Your task to perform on an android device: Go to Wikipedia Image 0: 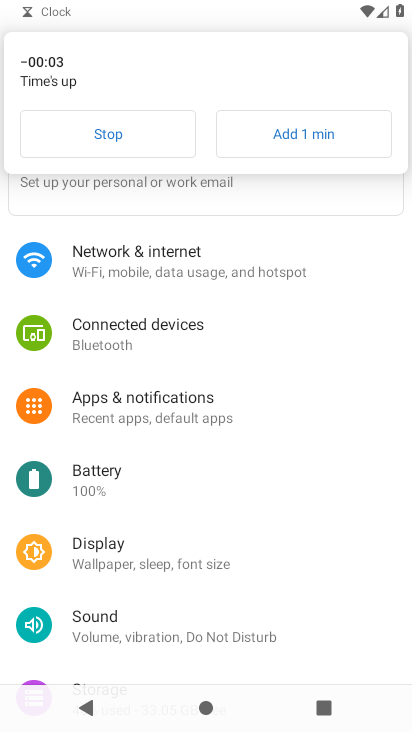
Step 0: click (161, 152)
Your task to perform on an android device: Go to Wikipedia Image 1: 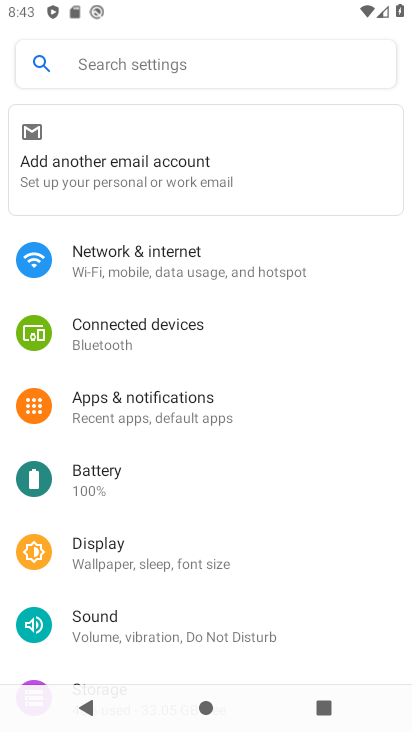
Step 1: press back button
Your task to perform on an android device: Go to Wikipedia Image 2: 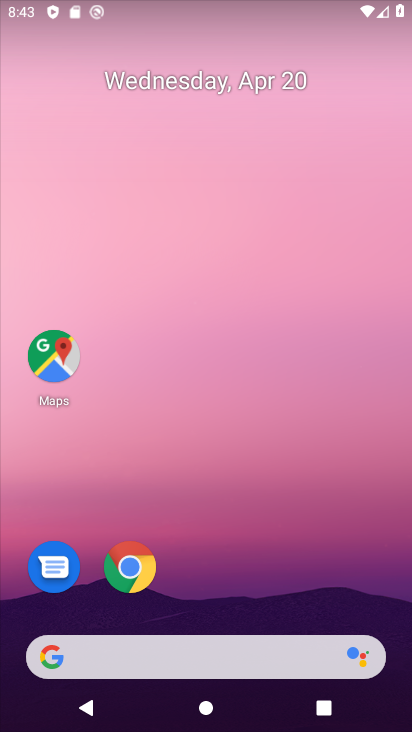
Step 2: click (130, 582)
Your task to perform on an android device: Go to Wikipedia Image 3: 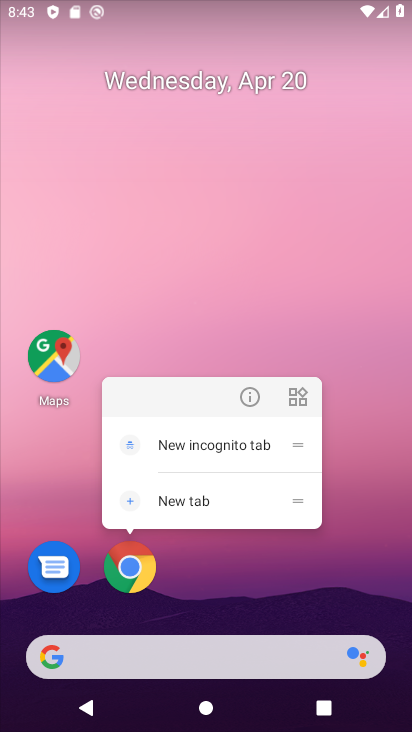
Step 3: click (133, 576)
Your task to perform on an android device: Go to Wikipedia Image 4: 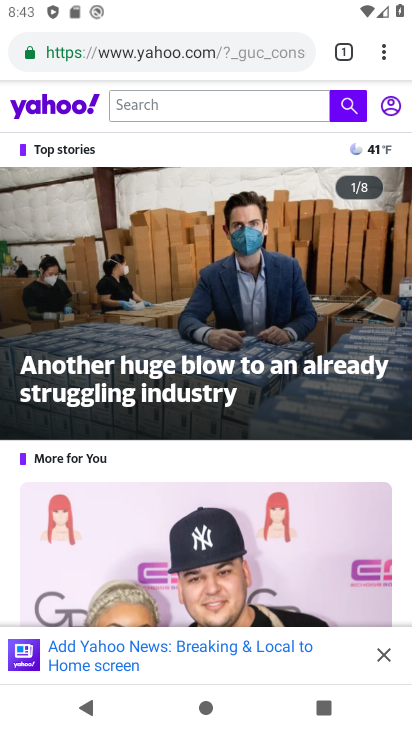
Step 4: press back button
Your task to perform on an android device: Go to Wikipedia Image 5: 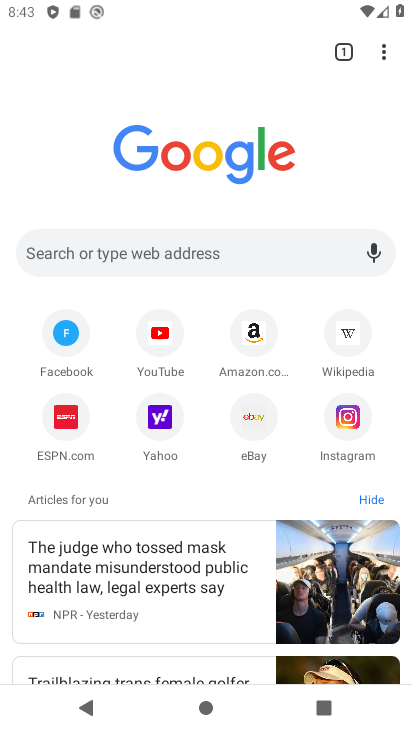
Step 5: click (366, 349)
Your task to perform on an android device: Go to Wikipedia Image 6: 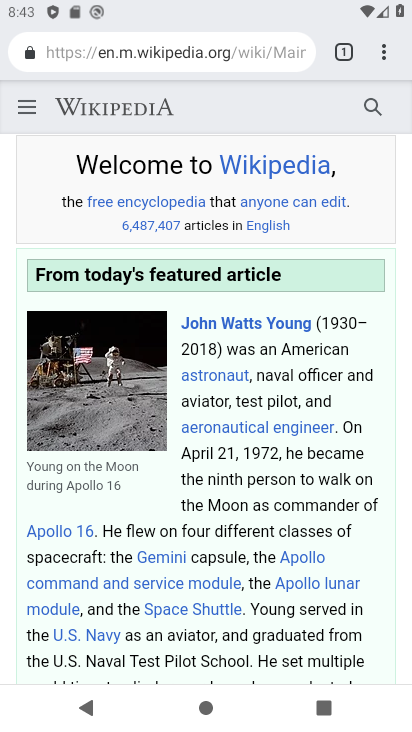
Step 6: task complete